Your task to perform on an android device: turn pop-ups on in chrome Image 0: 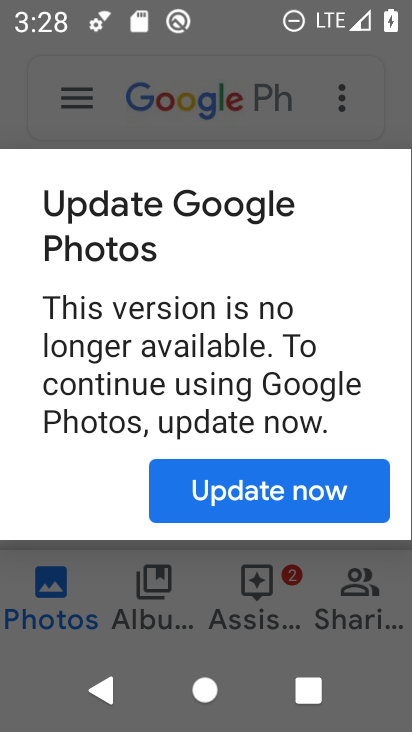
Step 0: press home button
Your task to perform on an android device: turn pop-ups on in chrome Image 1: 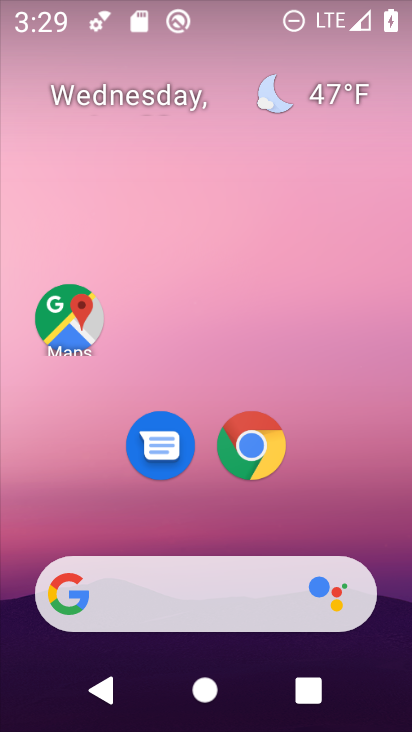
Step 1: click (253, 447)
Your task to perform on an android device: turn pop-ups on in chrome Image 2: 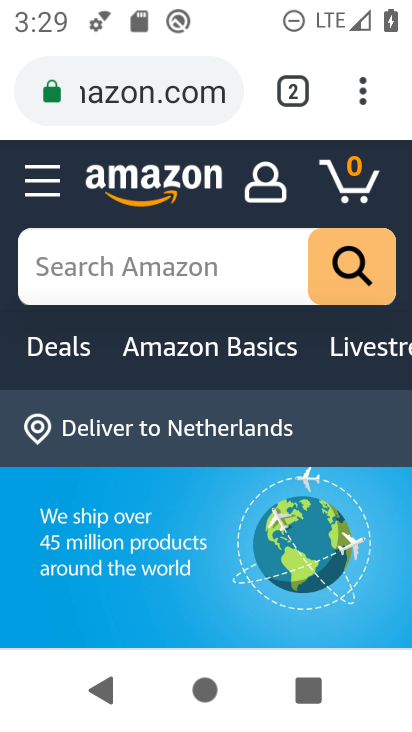
Step 2: click (363, 96)
Your task to perform on an android device: turn pop-ups on in chrome Image 3: 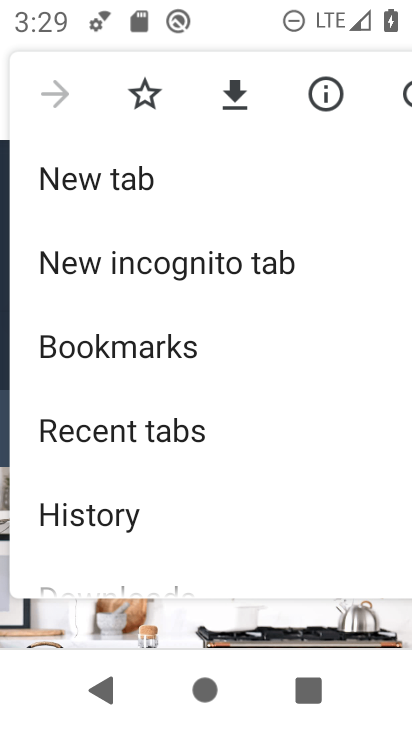
Step 3: drag from (212, 496) to (248, 341)
Your task to perform on an android device: turn pop-ups on in chrome Image 4: 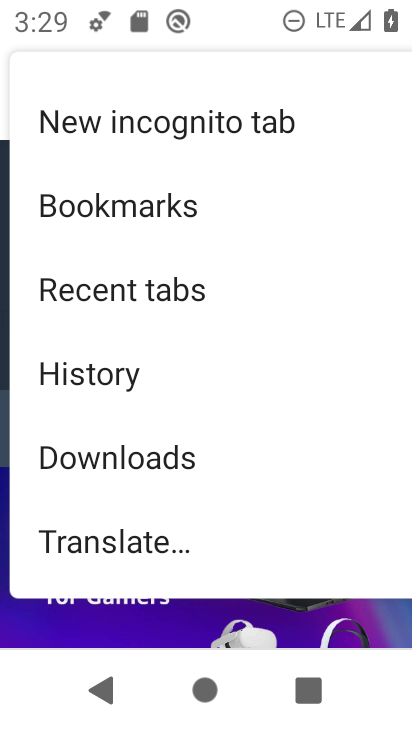
Step 4: drag from (219, 455) to (242, 323)
Your task to perform on an android device: turn pop-ups on in chrome Image 5: 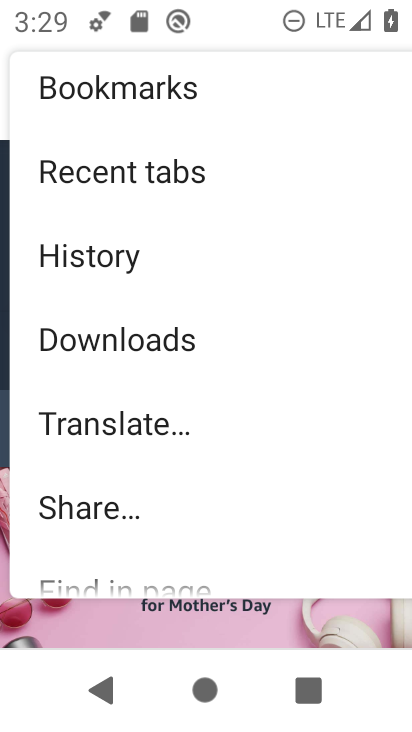
Step 5: drag from (217, 422) to (231, 332)
Your task to perform on an android device: turn pop-ups on in chrome Image 6: 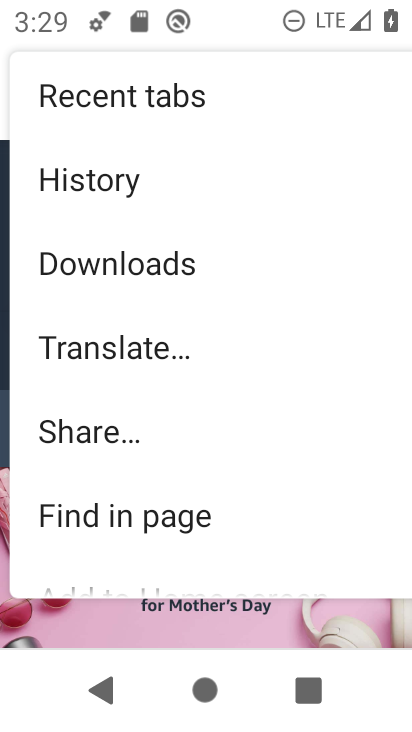
Step 6: drag from (210, 440) to (242, 332)
Your task to perform on an android device: turn pop-ups on in chrome Image 7: 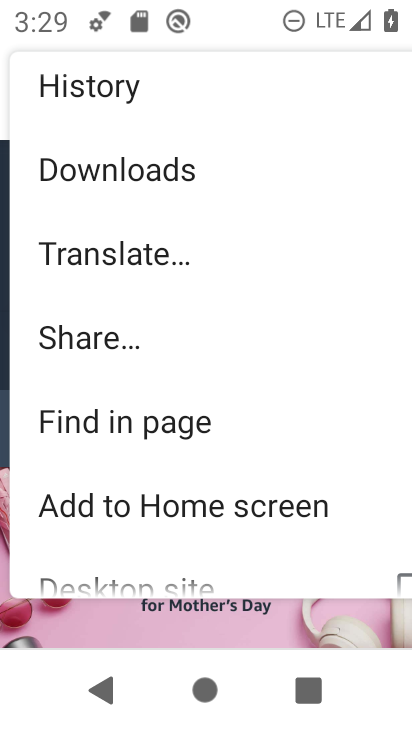
Step 7: drag from (232, 421) to (264, 257)
Your task to perform on an android device: turn pop-ups on in chrome Image 8: 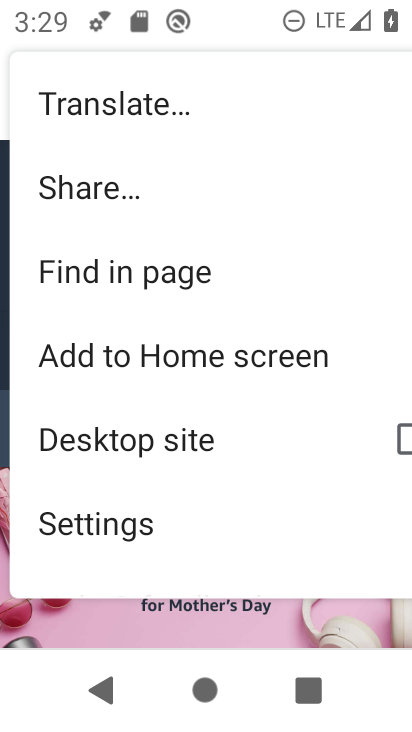
Step 8: click (135, 534)
Your task to perform on an android device: turn pop-ups on in chrome Image 9: 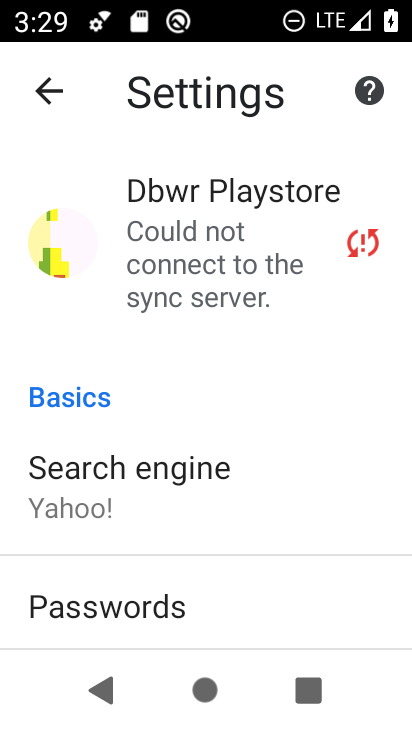
Step 9: drag from (207, 571) to (246, 461)
Your task to perform on an android device: turn pop-ups on in chrome Image 10: 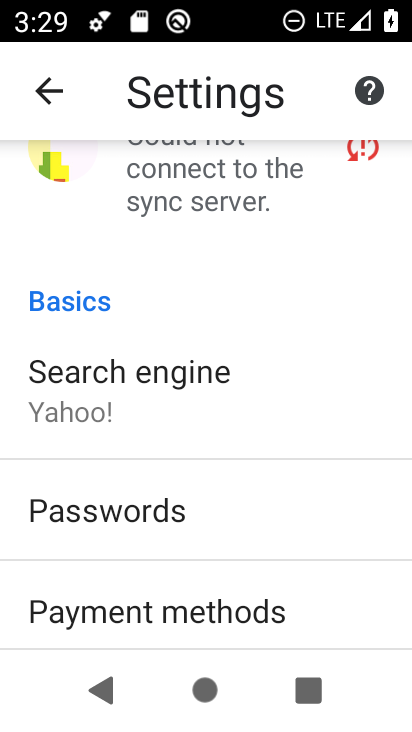
Step 10: drag from (226, 577) to (278, 414)
Your task to perform on an android device: turn pop-ups on in chrome Image 11: 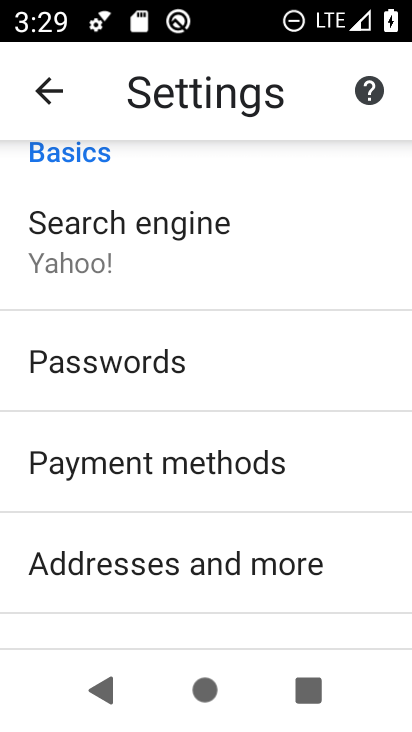
Step 11: drag from (216, 532) to (263, 381)
Your task to perform on an android device: turn pop-ups on in chrome Image 12: 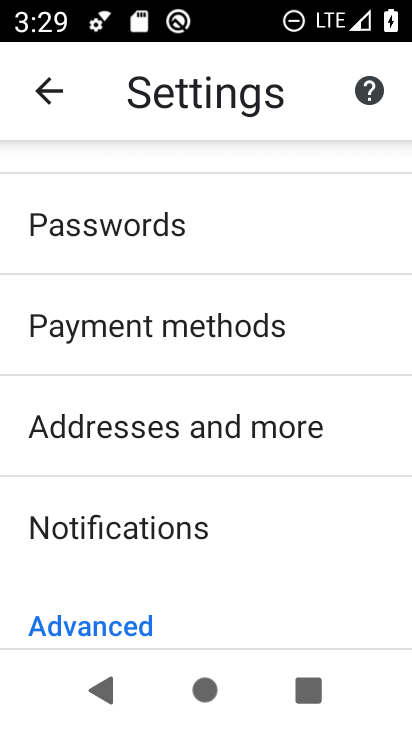
Step 12: drag from (233, 503) to (281, 345)
Your task to perform on an android device: turn pop-ups on in chrome Image 13: 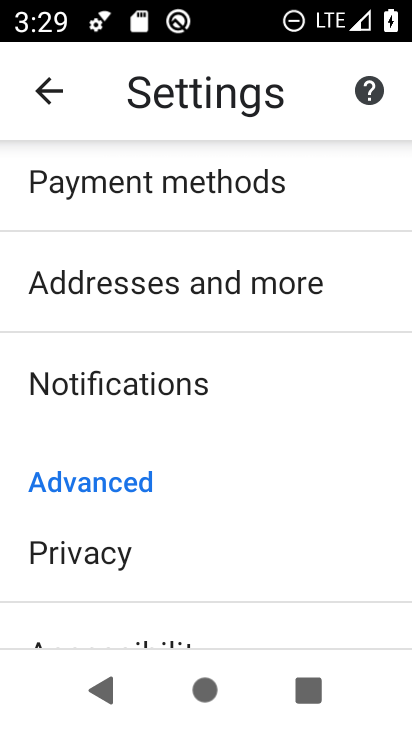
Step 13: drag from (205, 540) to (269, 360)
Your task to perform on an android device: turn pop-ups on in chrome Image 14: 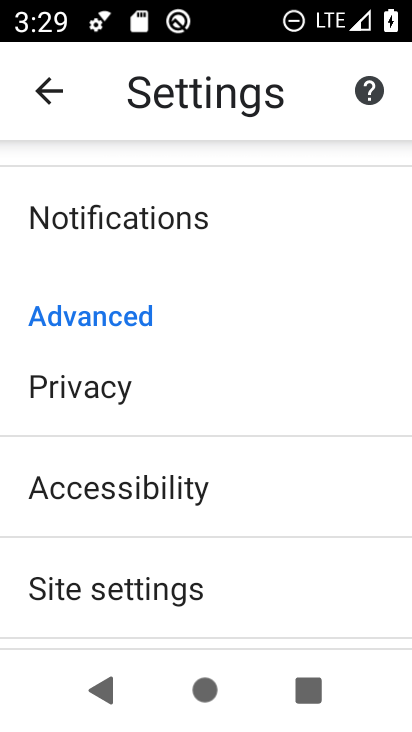
Step 14: click (177, 602)
Your task to perform on an android device: turn pop-ups on in chrome Image 15: 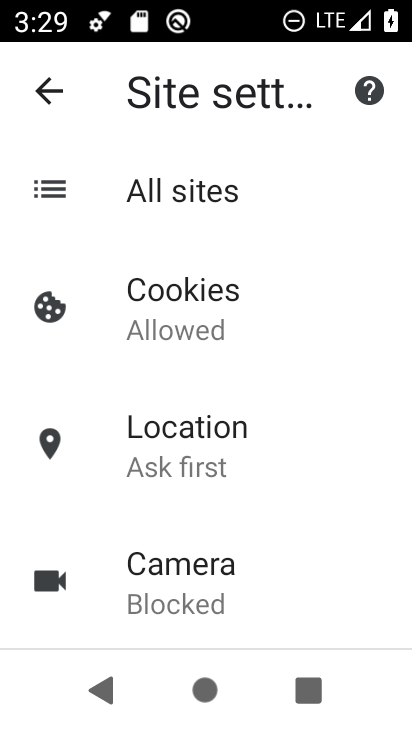
Step 15: drag from (239, 522) to (302, 380)
Your task to perform on an android device: turn pop-ups on in chrome Image 16: 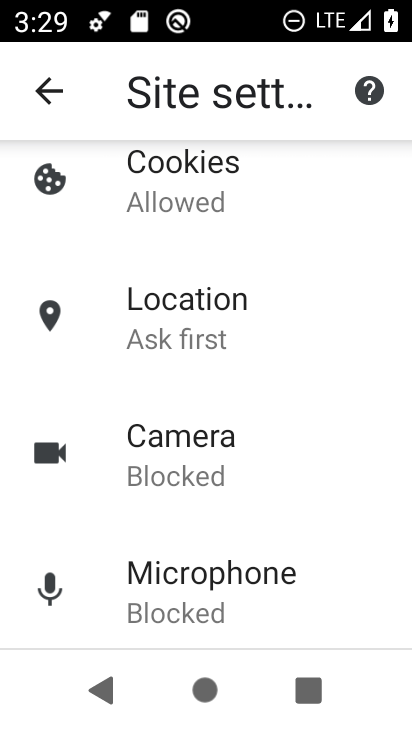
Step 16: drag from (233, 535) to (271, 382)
Your task to perform on an android device: turn pop-ups on in chrome Image 17: 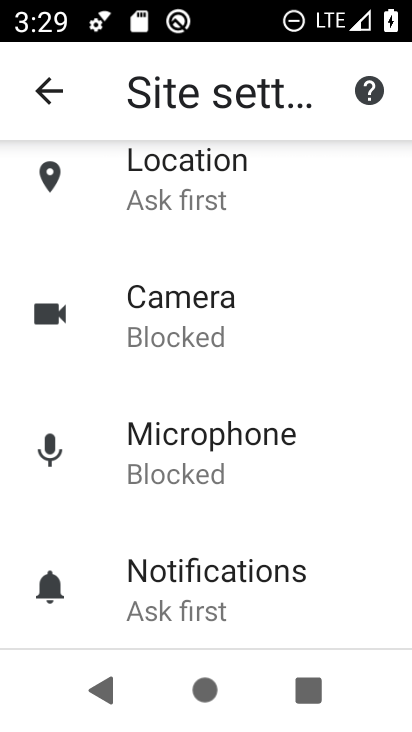
Step 17: drag from (231, 531) to (283, 381)
Your task to perform on an android device: turn pop-ups on in chrome Image 18: 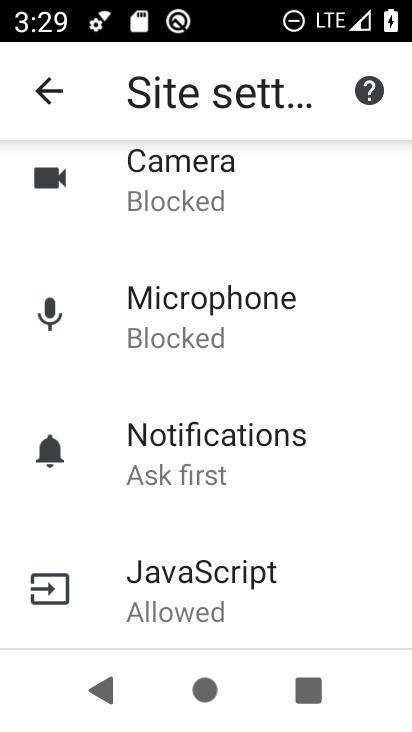
Step 18: drag from (244, 538) to (250, 385)
Your task to perform on an android device: turn pop-ups on in chrome Image 19: 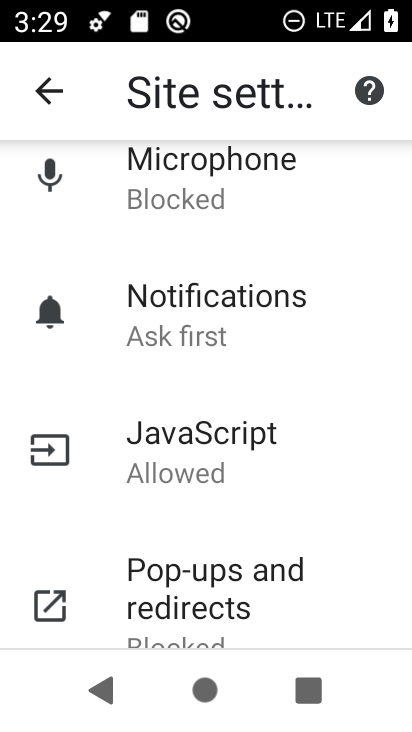
Step 19: drag from (222, 535) to (244, 423)
Your task to perform on an android device: turn pop-ups on in chrome Image 20: 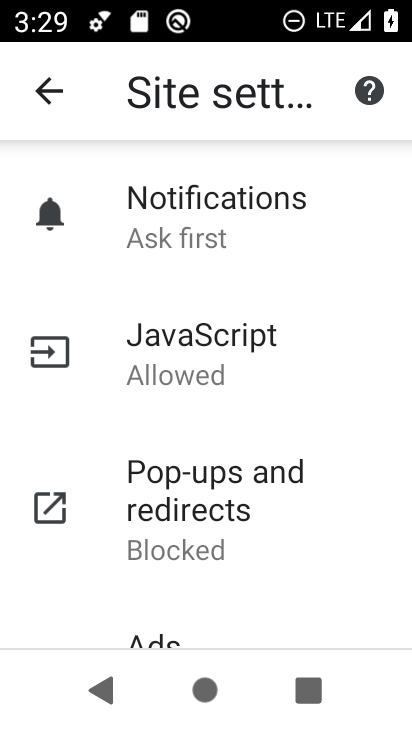
Step 20: click (222, 505)
Your task to perform on an android device: turn pop-ups on in chrome Image 21: 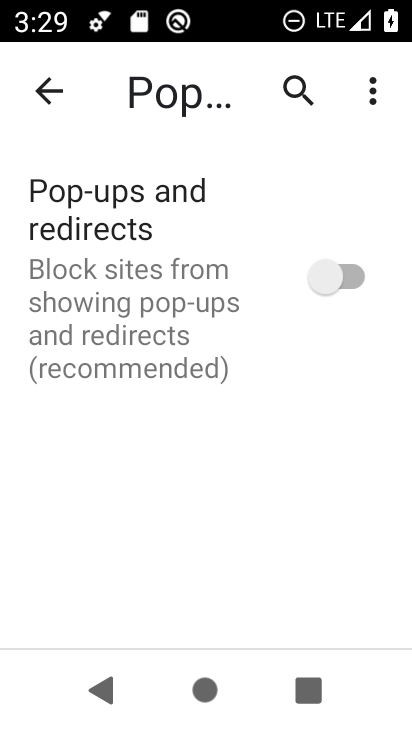
Step 21: click (325, 275)
Your task to perform on an android device: turn pop-ups on in chrome Image 22: 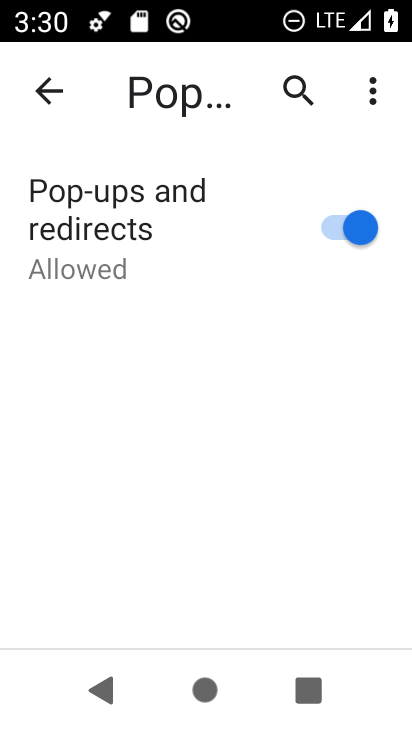
Step 22: task complete